Your task to perform on an android device: Open battery settings Image 0: 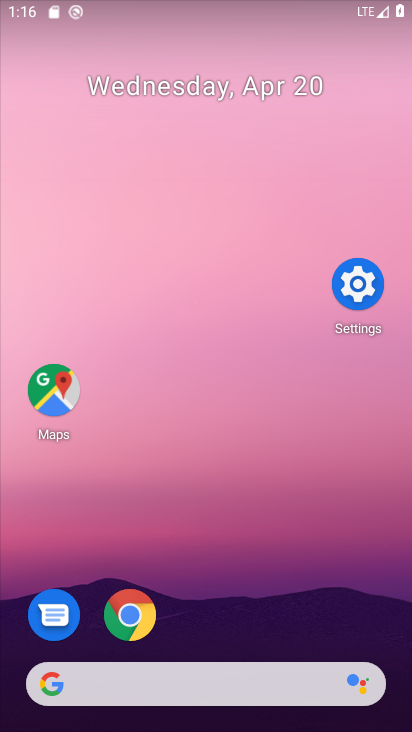
Step 0: click (384, 30)
Your task to perform on an android device: Open battery settings Image 1: 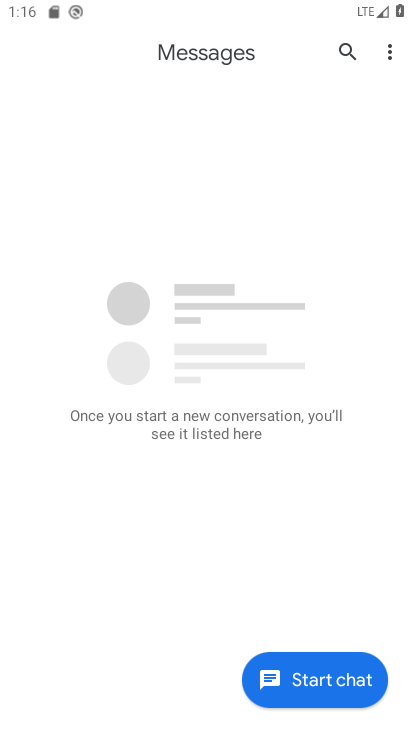
Step 1: drag from (169, 616) to (211, 153)
Your task to perform on an android device: Open battery settings Image 2: 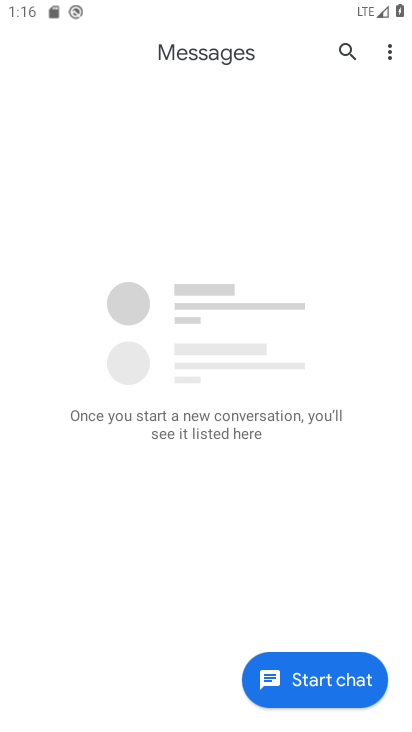
Step 2: press home button
Your task to perform on an android device: Open battery settings Image 3: 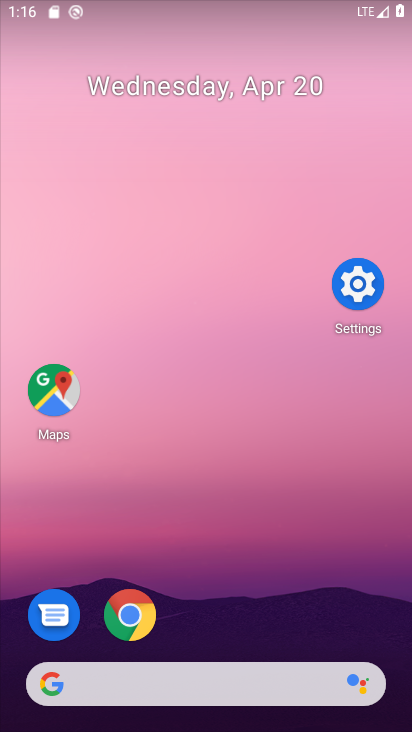
Step 3: drag from (204, 591) to (347, 34)
Your task to perform on an android device: Open battery settings Image 4: 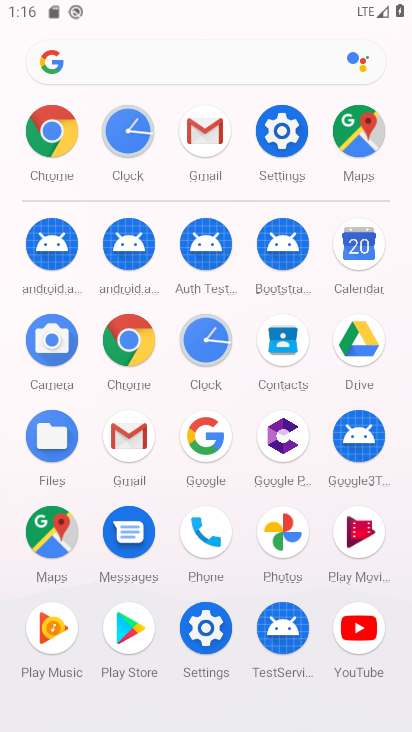
Step 4: click (285, 125)
Your task to perform on an android device: Open battery settings Image 5: 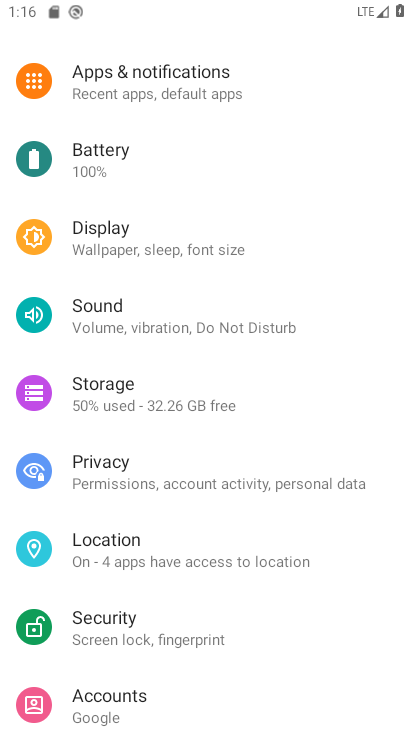
Step 5: click (171, 166)
Your task to perform on an android device: Open battery settings Image 6: 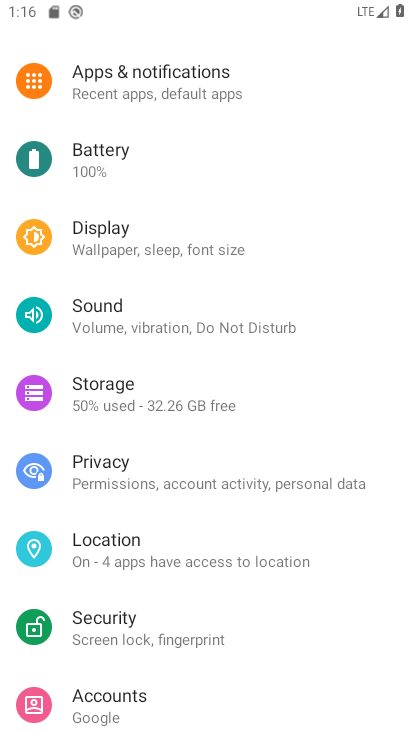
Step 6: click (171, 166)
Your task to perform on an android device: Open battery settings Image 7: 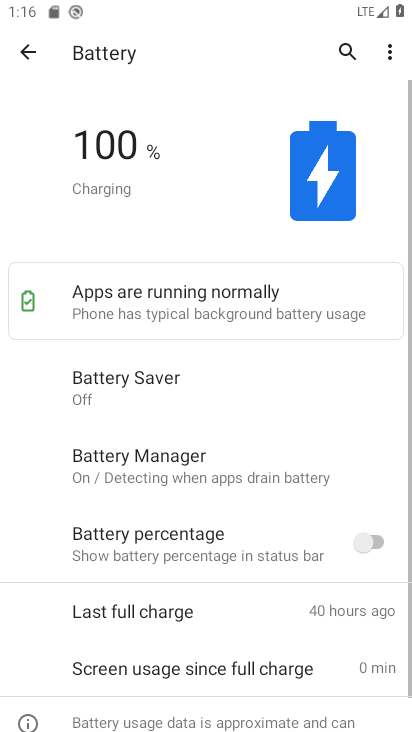
Step 7: drag from (235, 169) to (220, 472)
Your task to perform on an android device: Open battery settings Image 8: 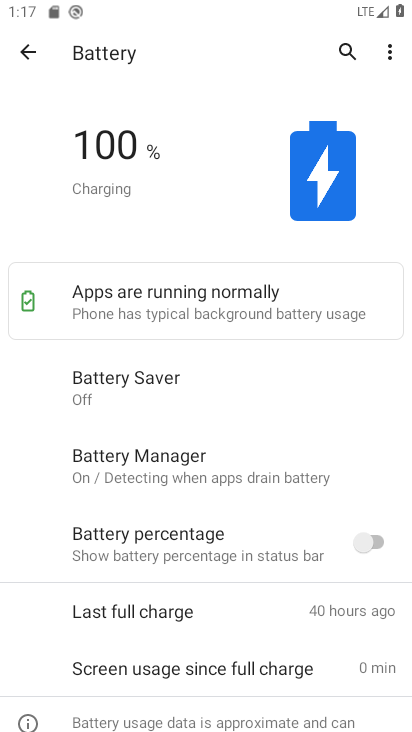
Step 8: click (395, 57)
Your task to perform on an android device: Open battery settings Image 9: 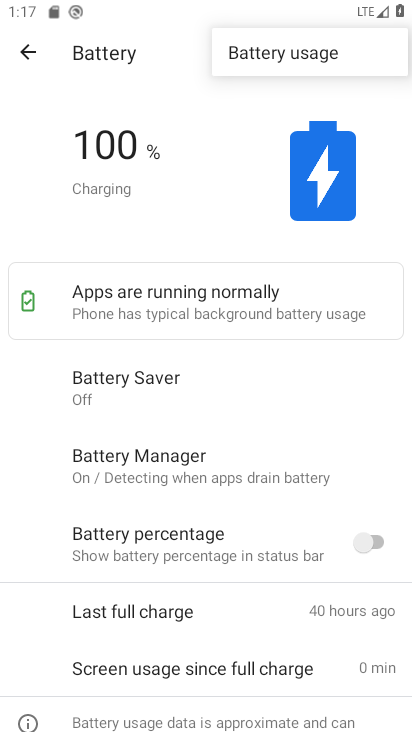
Step 9: click (82, 143)
Your task to perform on an android device: Open battery settings Image 10: 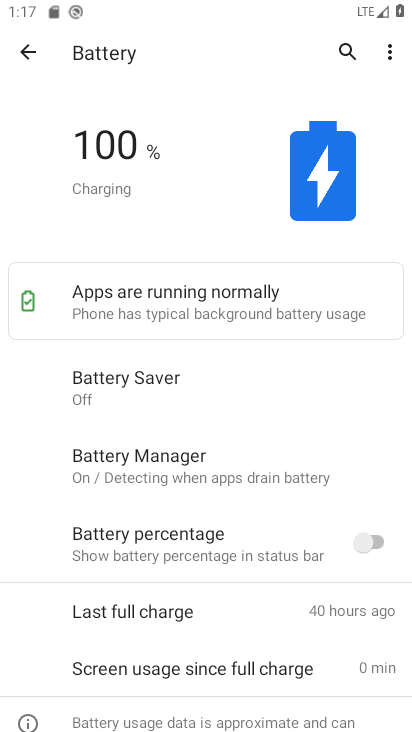
Step 10: task complete